Your task to perform on an android device: toggle airplane mode Image 0: 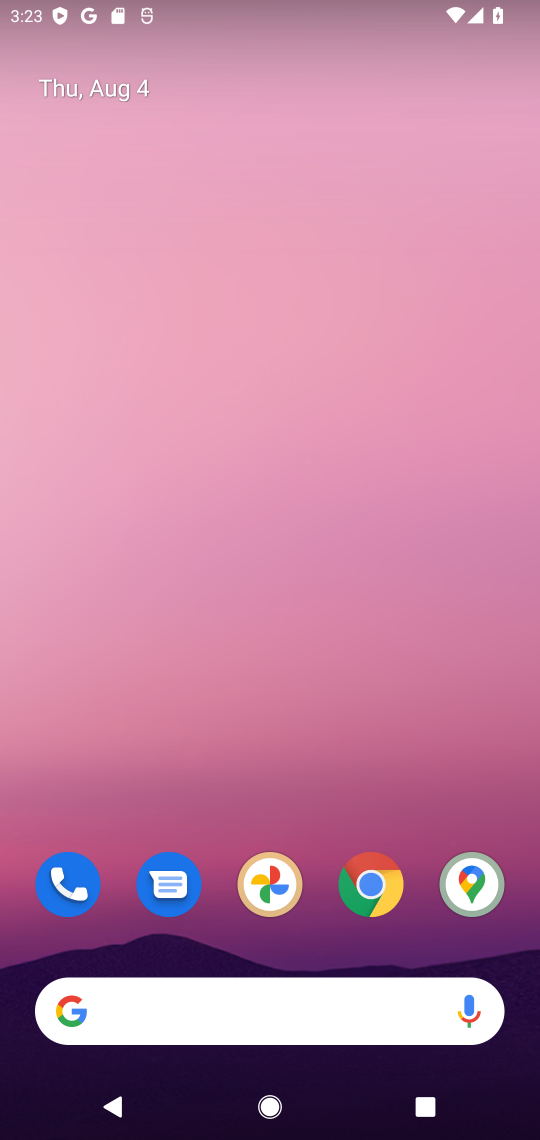
Step 0: drag from (218, 905) to (266, 180)
Your task to perform on an android device: toggle airplane mode Image 1: 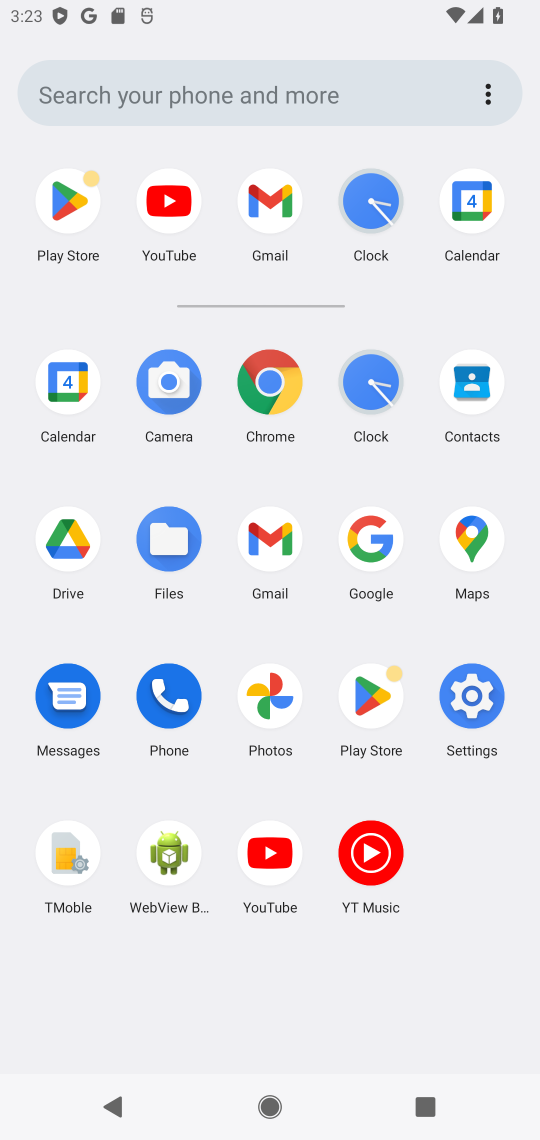
Step 1: click (478, 685)
Your task to perform on an android device: toggle airplane mode Image 2: 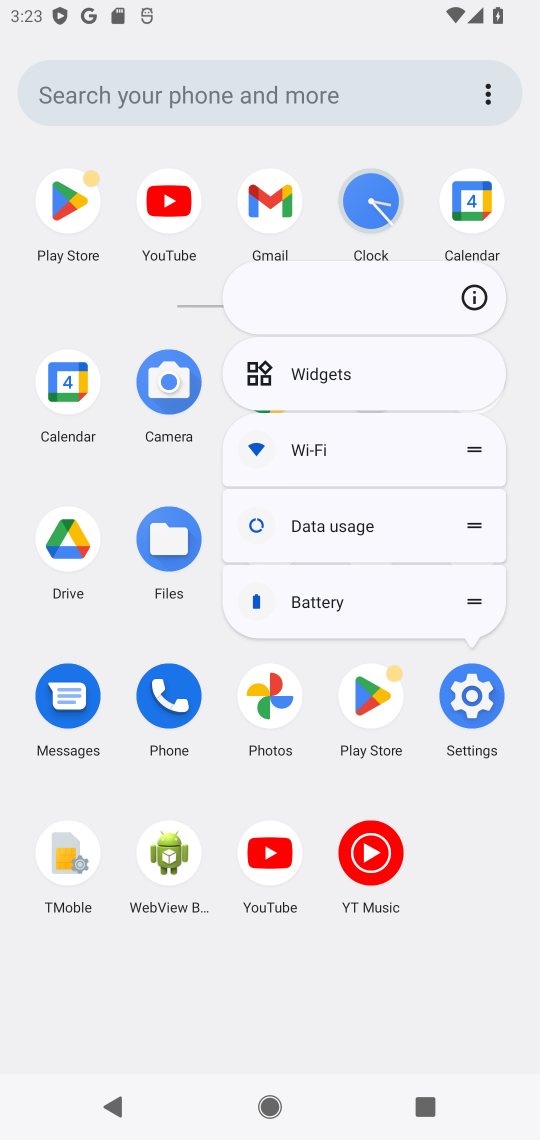
Step 2: click (468, 299)
Your task to perform on an android device: toggle airplane mode Image 3: 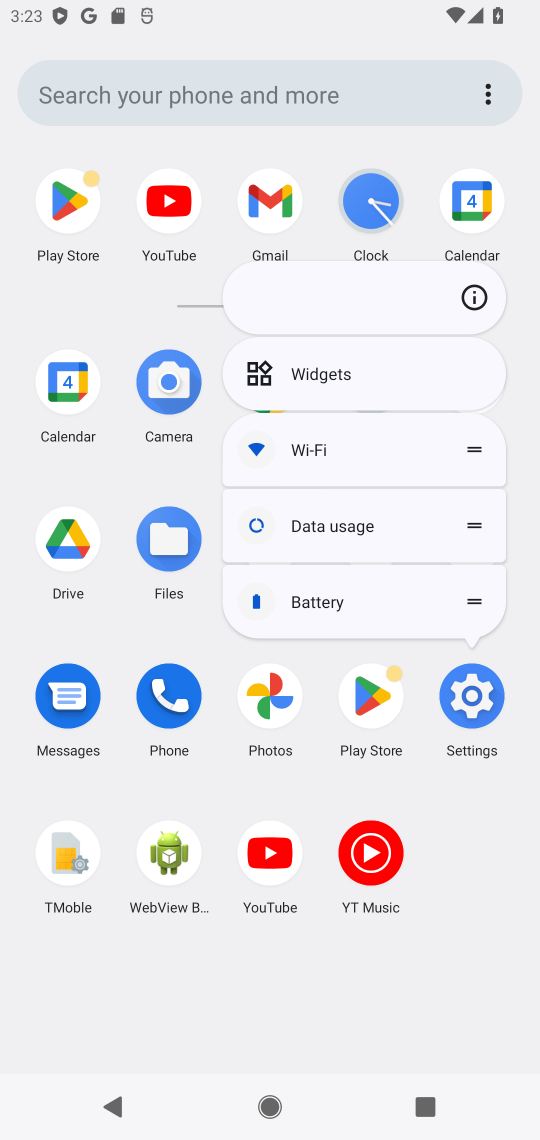
Step 3: click (462, 295)
Your task to perform on an android device: toggle airplane mode Image 4: 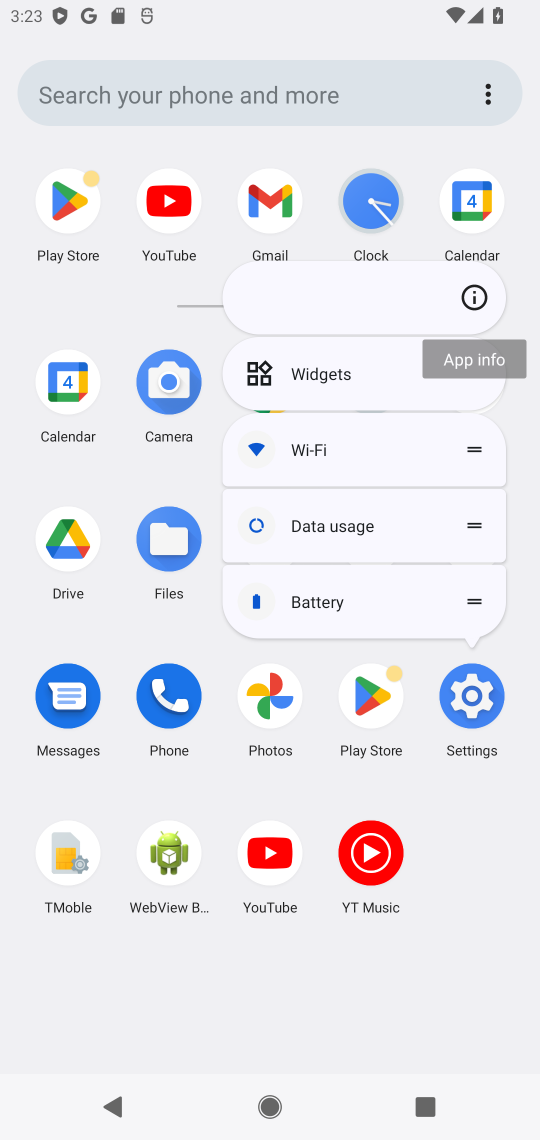
Step 4: click (462, 294)
Your task to perform on an android device: toggle airplane mode Image 5: 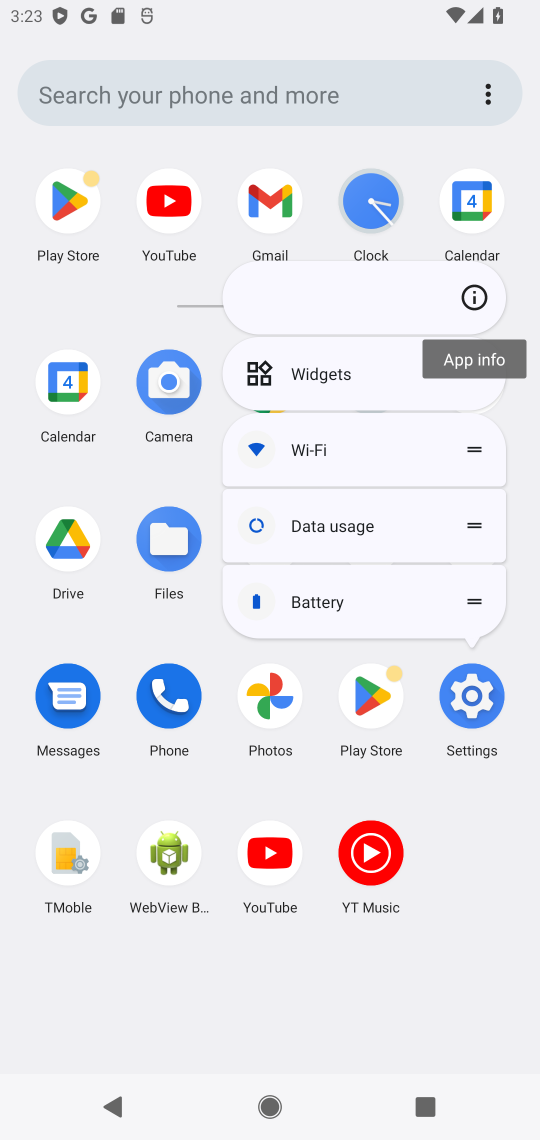
Step 5: click (459, 289)
Your task to perform on an android device: toggle airplane mode Image 6: 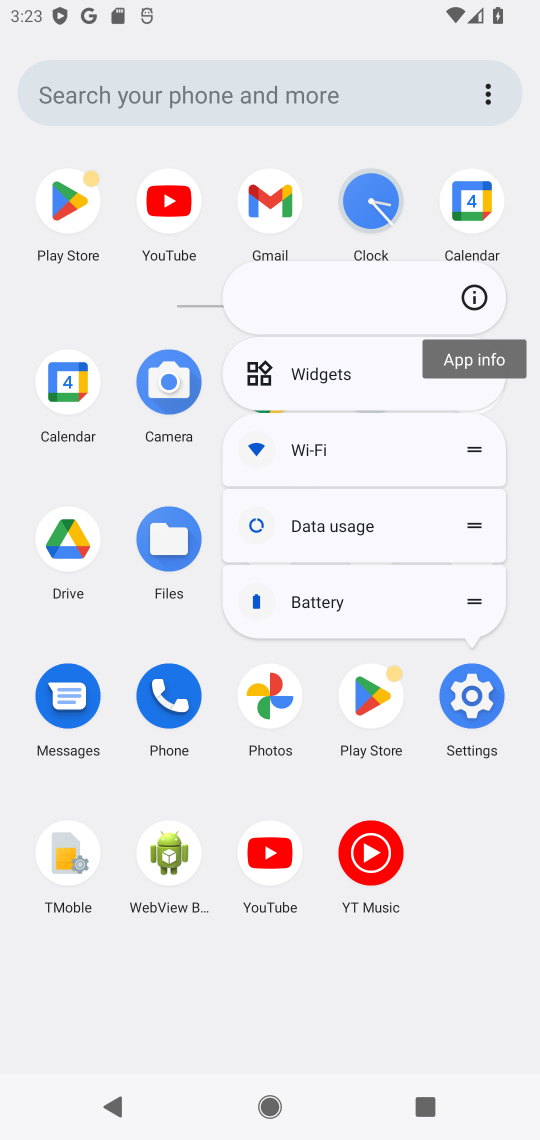
Step 6: click (459, 289)
Your task to perform on an android device: toggle airplane mode Image 7: 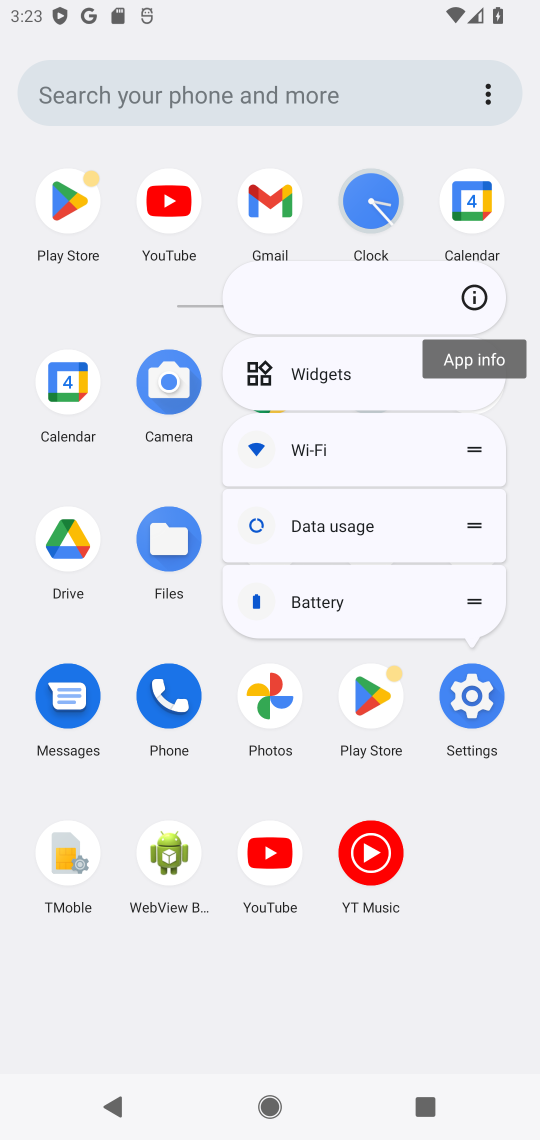
Step 7: click (454, 286)
Your task to perform on an android device: toggle airplane mode Image 8: 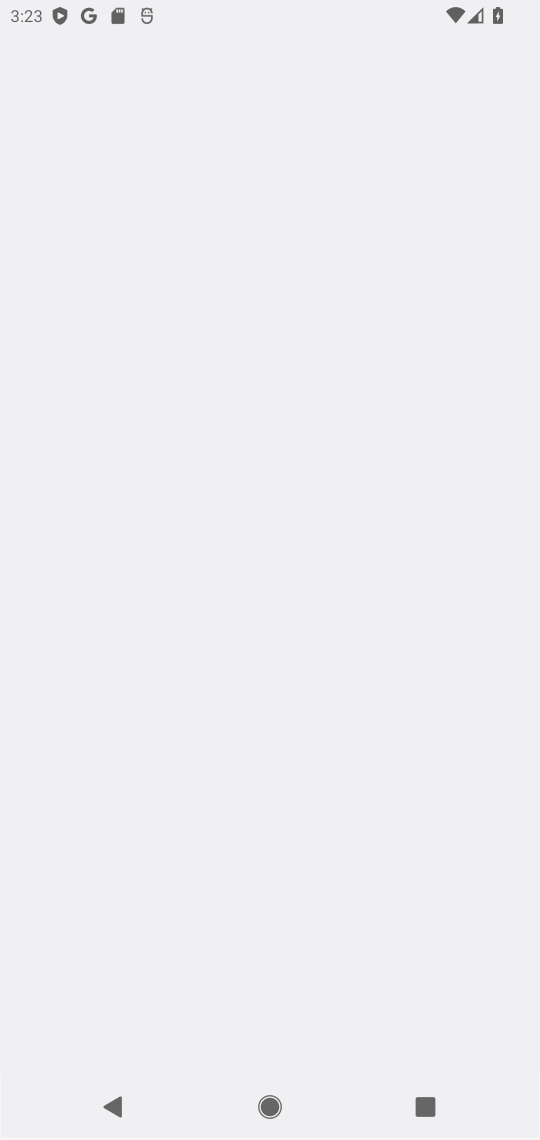
Step 8: click (467, 693)
Your task to perform on an android device: toggle airplane mode Image 9: 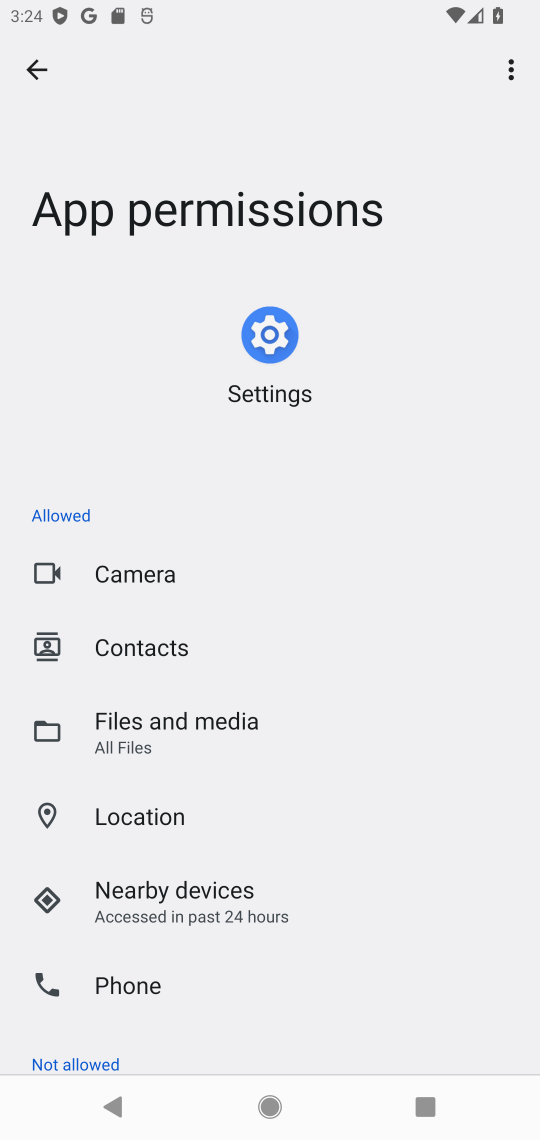
Step 9: click (29, 64)
Your task to perform on an android device: toggle airplane mode Image 10: 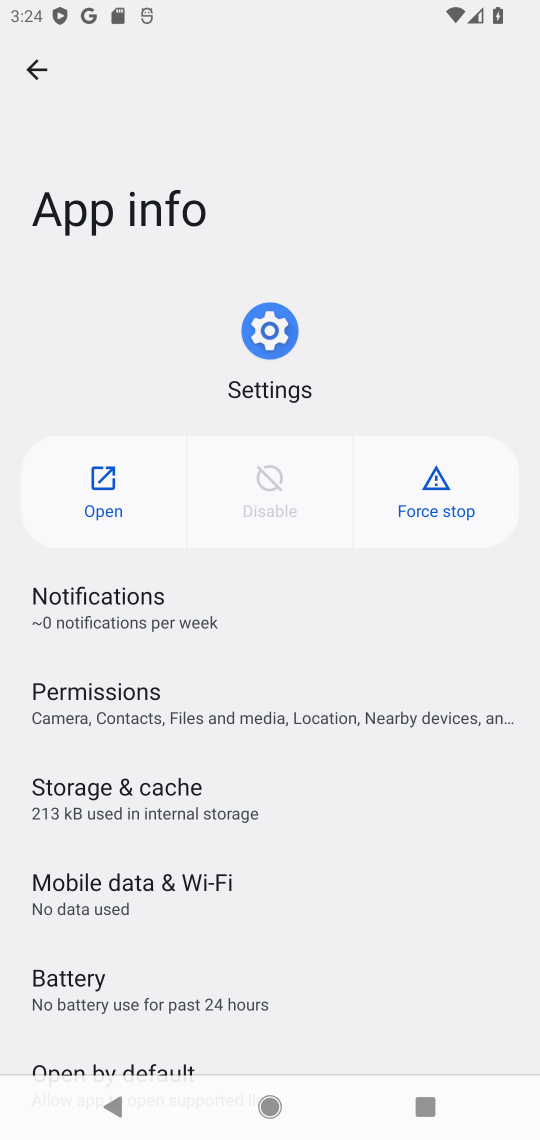
Step 10: click (92, 493)
Your task to perform on an android device: toggle airplane mode Image 11: 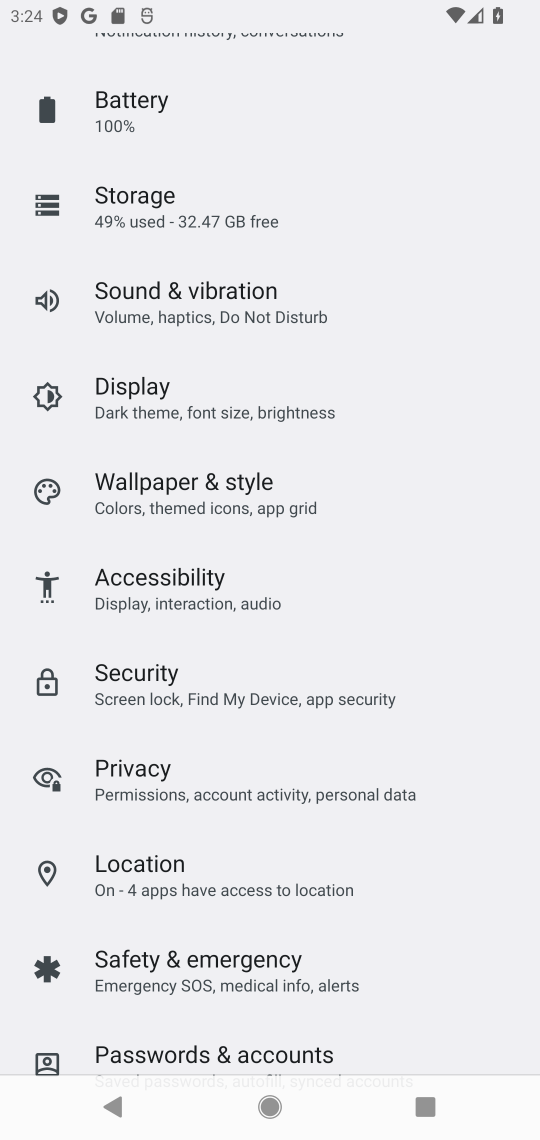
Step 11: drag from (260, 263) to (256, 1062)
Your task to perform on an android device: toggle airplane mode Image 12: 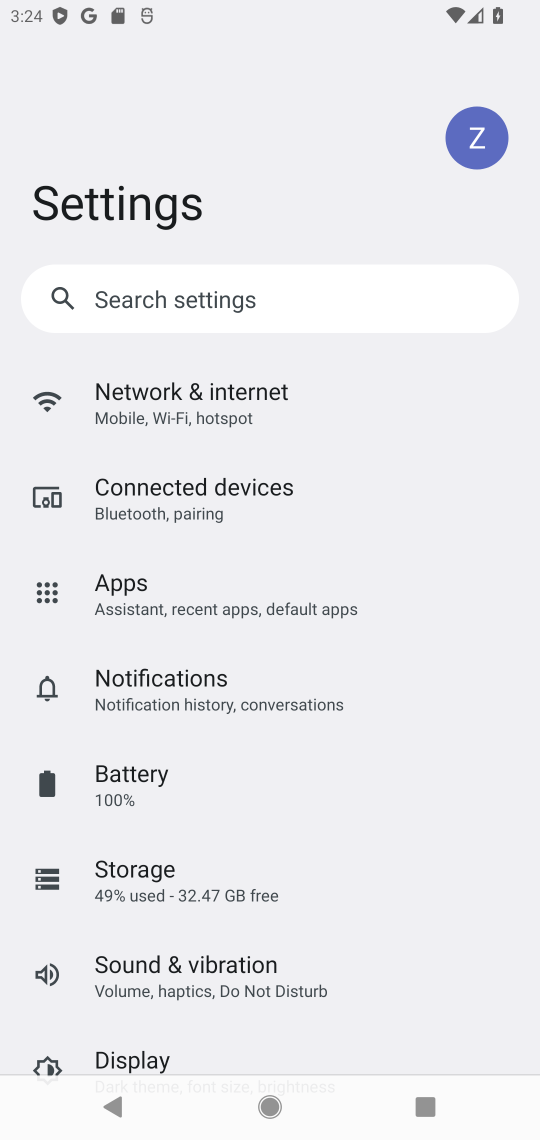
Step 12: click (178, 410)
Your task to perform on an android device: toggle airplane mode Image 13: 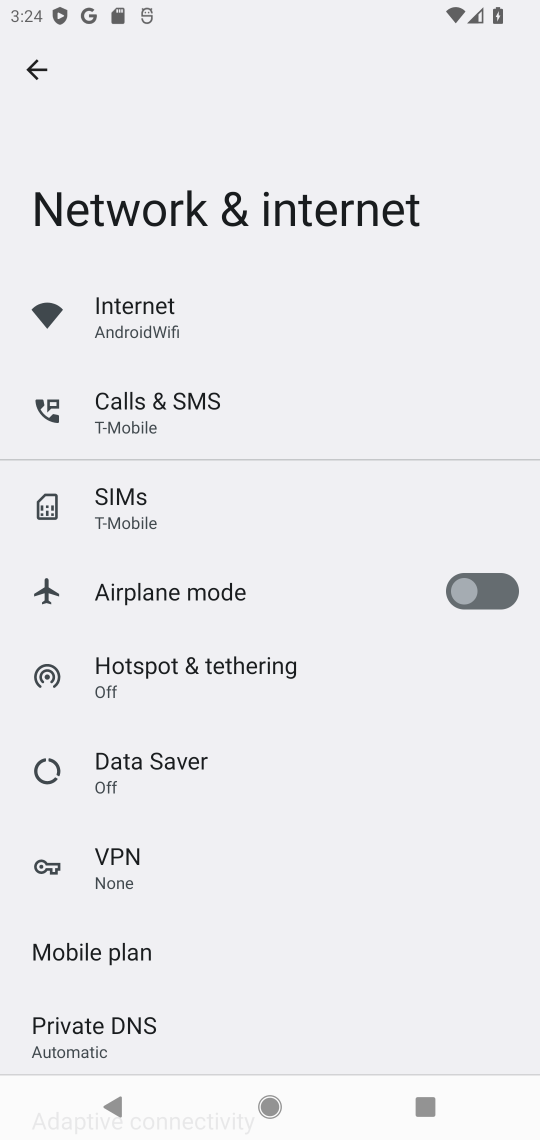
Step 13: click (463, 587)
Your task to perform on an android device: toggle airplane mode Image 14: 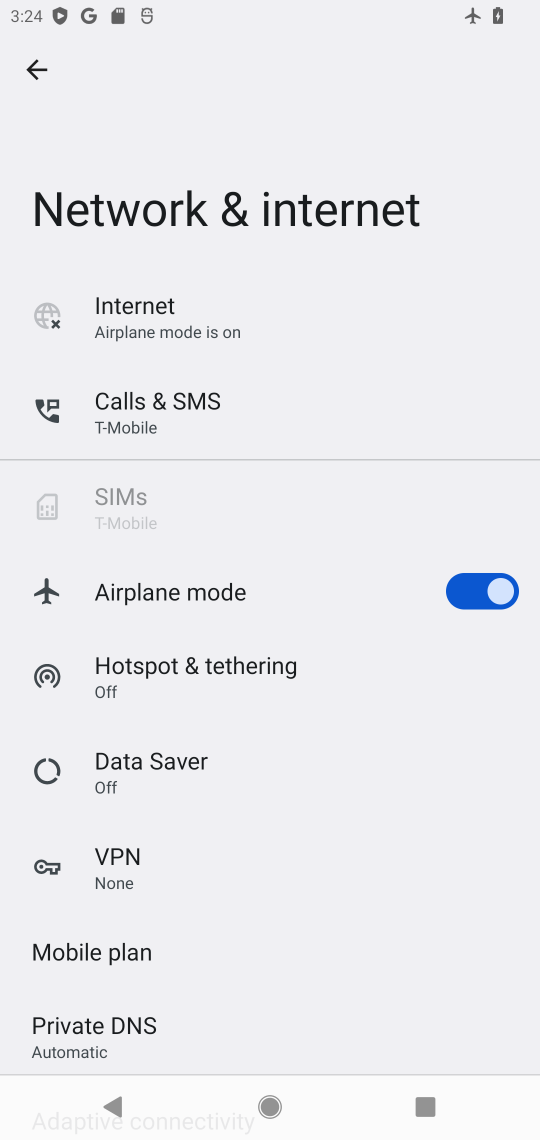
Step 14: task complete